Your task to perform on an android device: Go to calendar. Show me events next week Image 0: 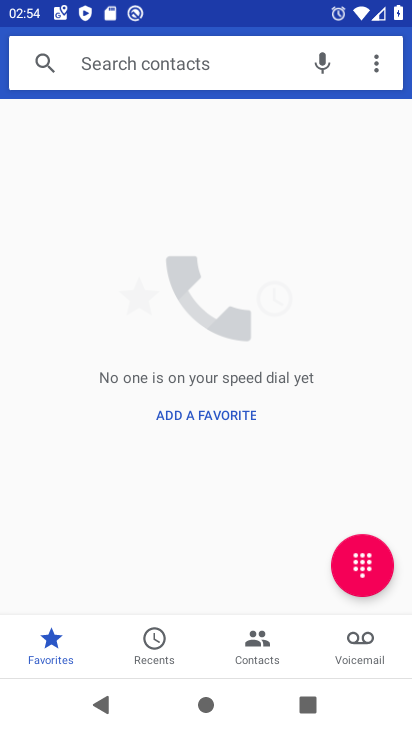
Step 0: press home button
Your task to perform on an android device: Go to calendar. Show me events next week Image 1: 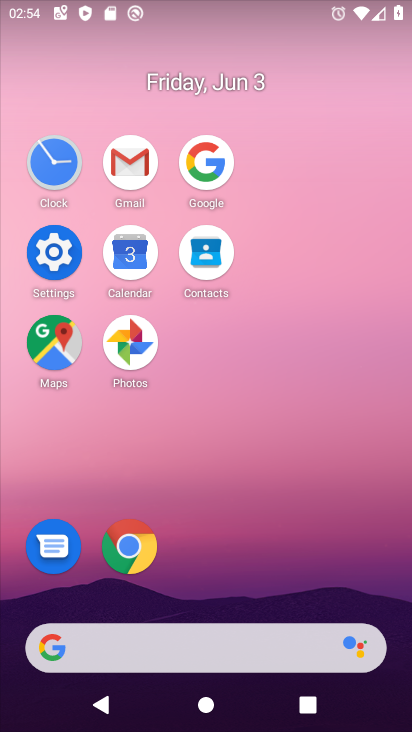
Step 1: click (138, 256)
Your task to perform on an android device: Go to calendar. Show me events next week Image 2: 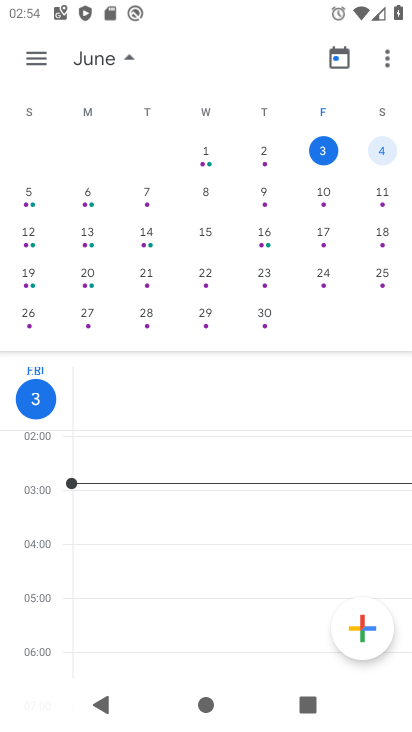
Step 2: click (37, 54)
Your task to perform on an android device: Go to calendar. Show me events next week Image 3: 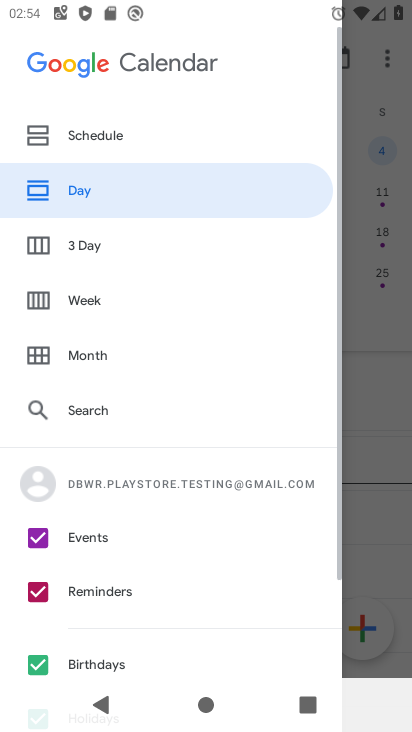
Step 3: click (98, 306)
Your task to perform on an android device: Go to calendar. Show me events next week Image 4: 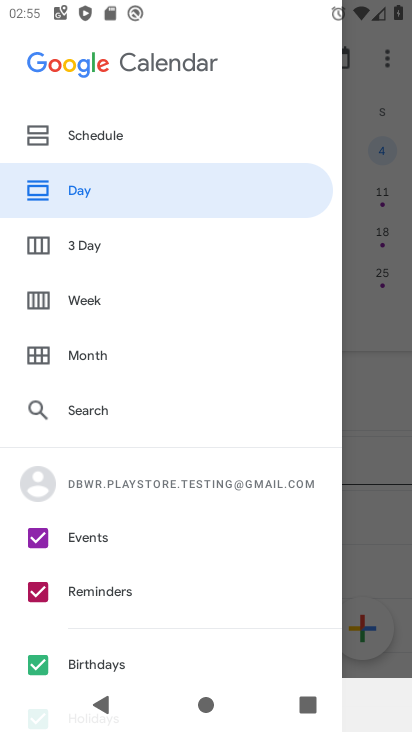
Step 4: click (147, 302)
Your task to perform on an android device: Go to calendar. Show me events next week Image 5: 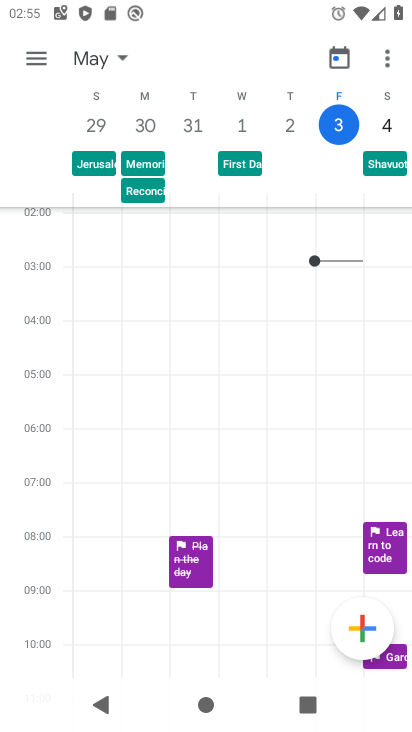
Step 5: task complete